Your task to perform on an android device: uninstall "Spotify: Music and Podcasts" Image 0: 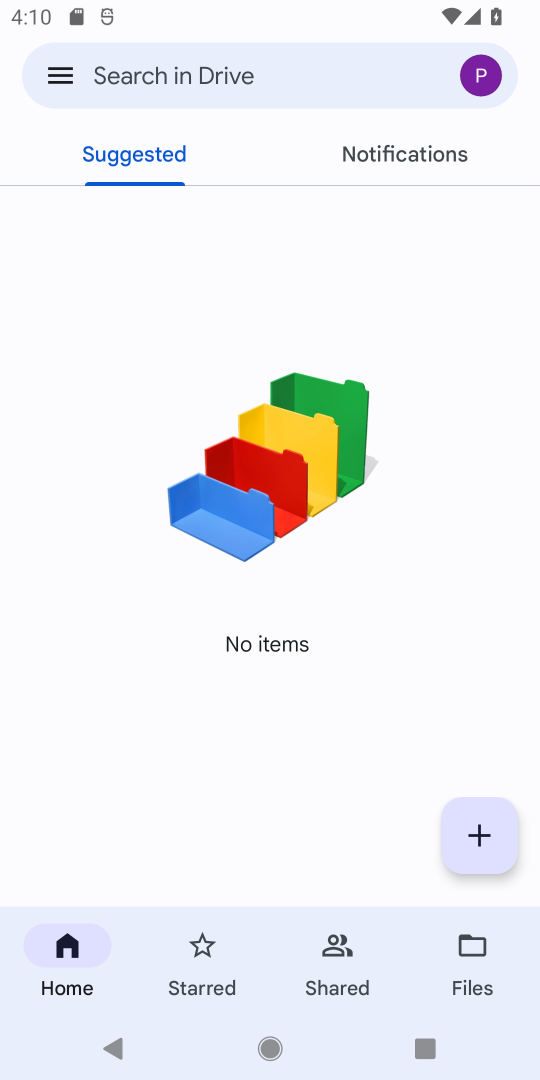
Step 0: press home button
Your task to perform on an android device: uninstall "Spotify: Music and Podcasts" Image 1: 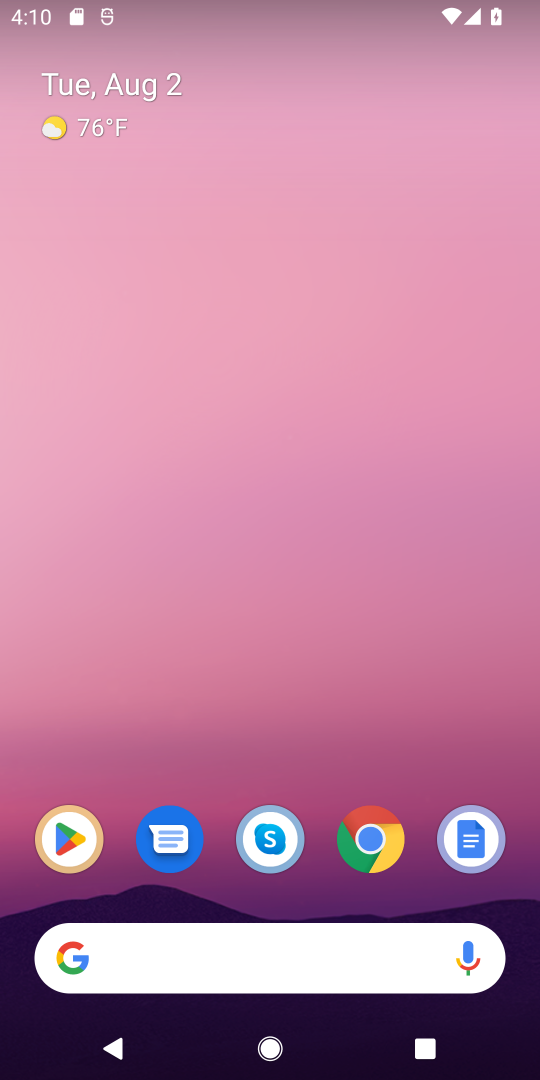
Step 1: drag from (113, 886) to (167, 73)
Your task to perform on an android device: uninstall "Spotify: Music and Podcasts" Image 2: 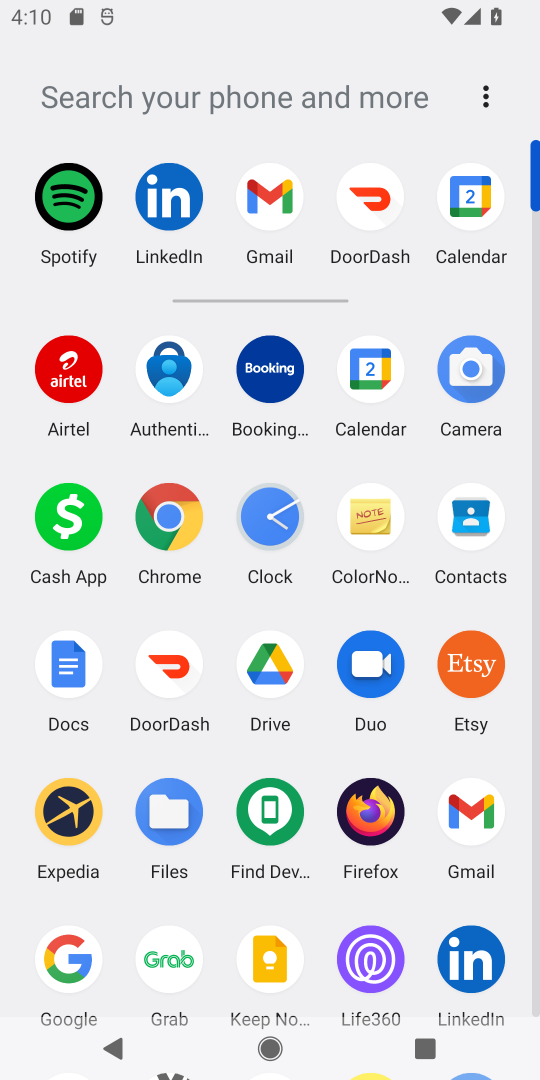
Step 2: click (81, 183)
Your task to perform on an android device: uninstall "Spotify: Music and Podcasts" Image 3: 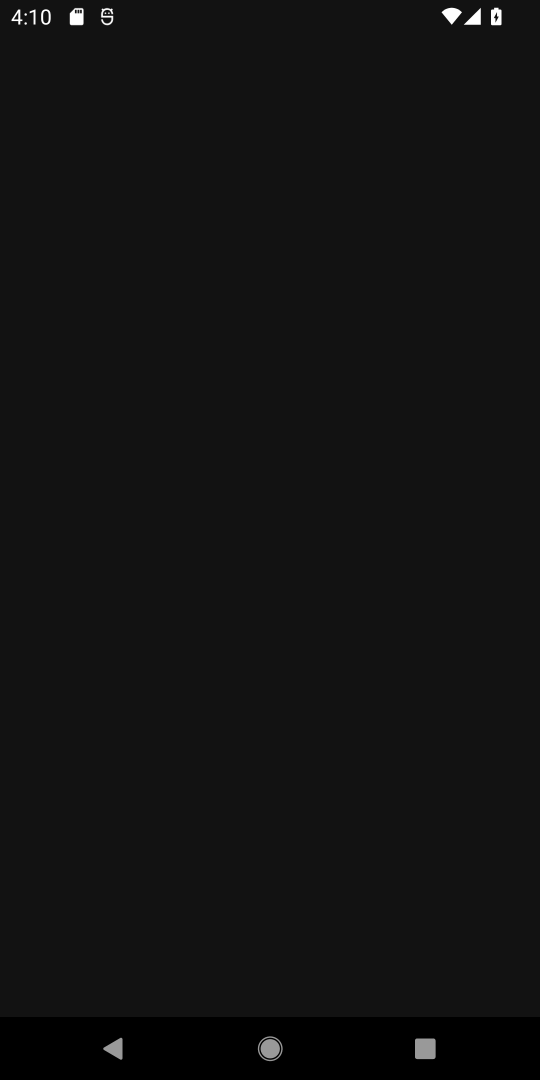
Step 3: press home button
Your task to perform on an android device: uninstall "Spotify: Music and Podcasts" Image 4: 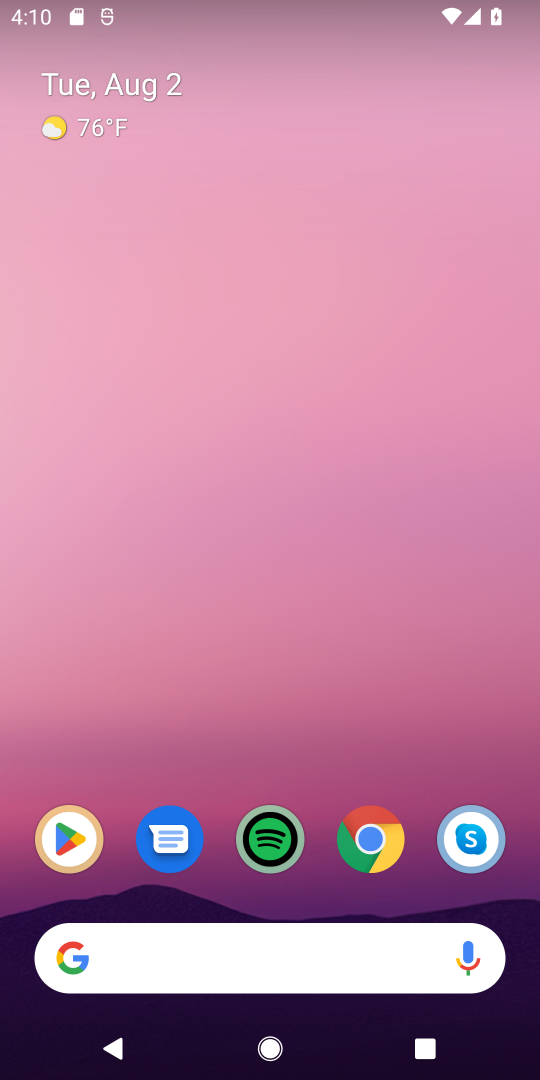
Step 4: click (275, 865)
Your task to perform on an android device: uninstall "Spotify: Music and Podcasts" Image 5: 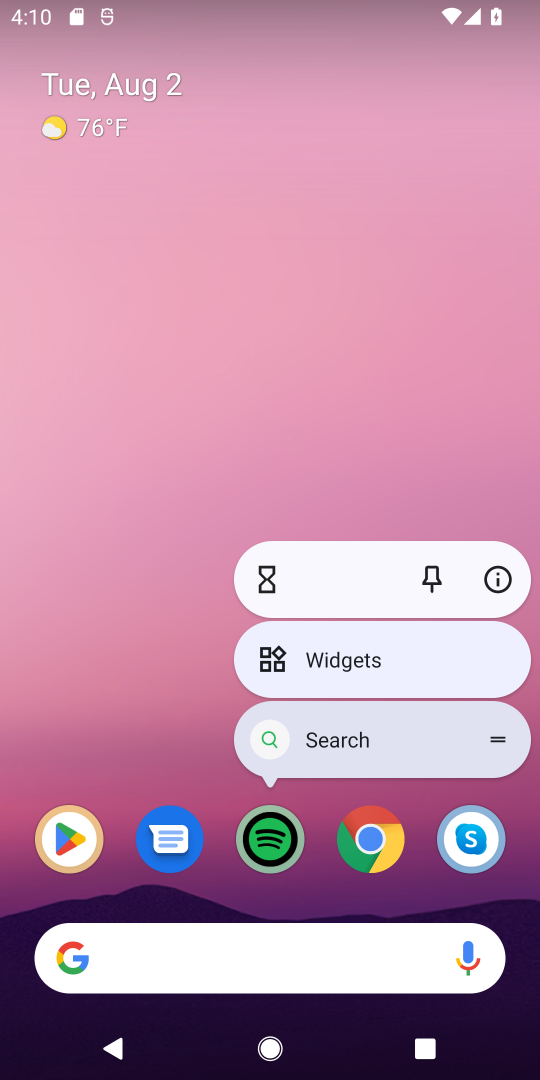
Step 5: click (481, 579)
Your task to perform on an android device: uninstall "Spotify: Music and Podcasts" Image 6: 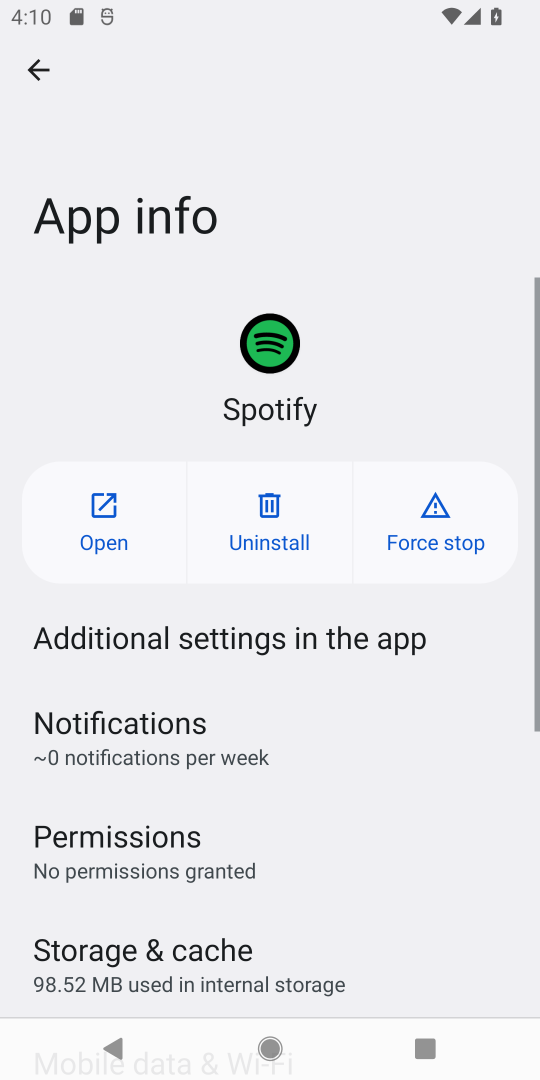
Step 6: click (271, 518)
Your task to perform on an android device: uninstall "Spotify: Music and Podcasts" Image 7: 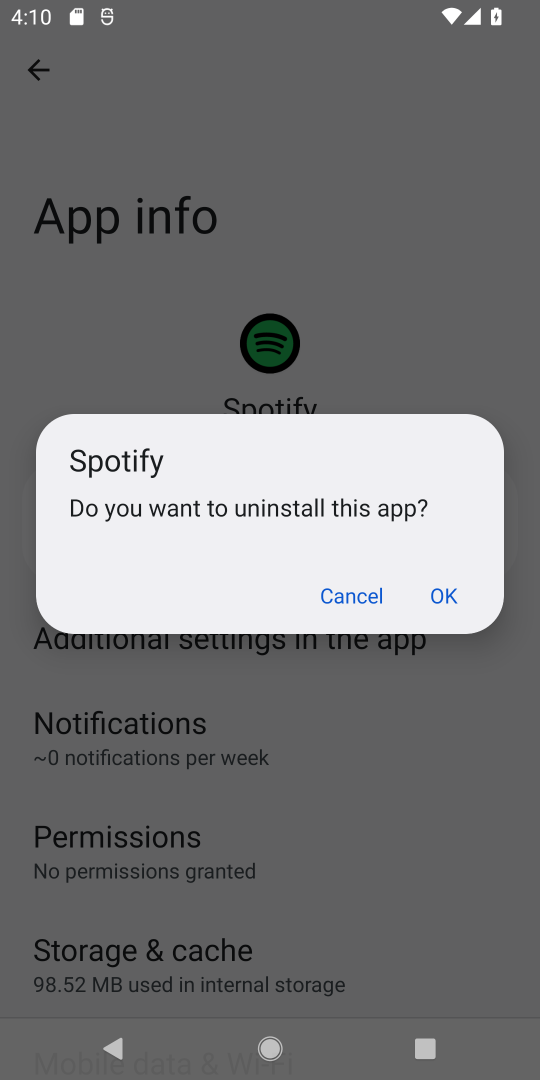
Step 7: click (451, 583)
Your task to perform on an android device: uninstall "Spotify: Music and Podcasts" Image 8: 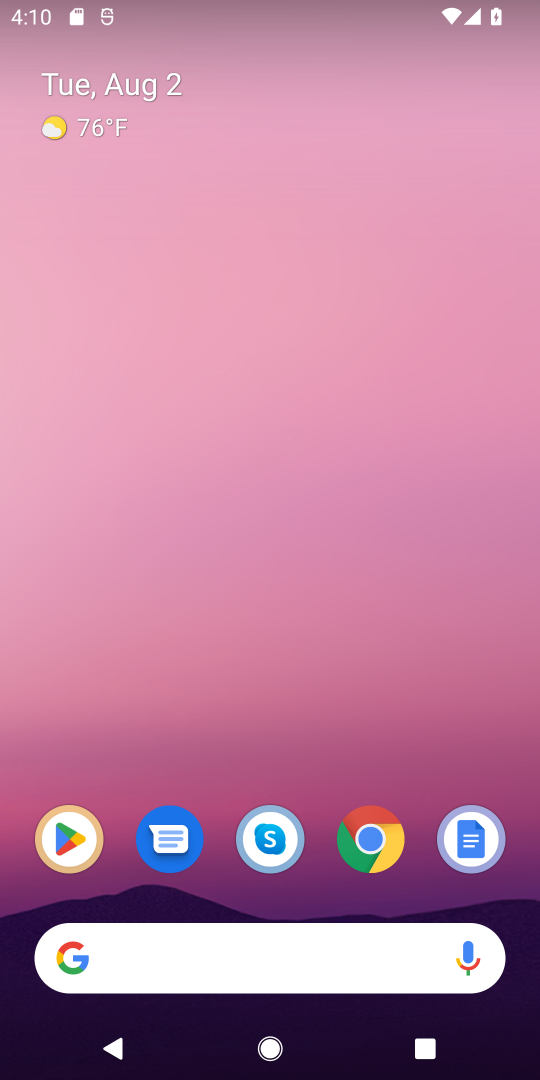
Step 8: task complete